Your task to perform on an android device: open chrome and create a bookmark for the current page Image 0: 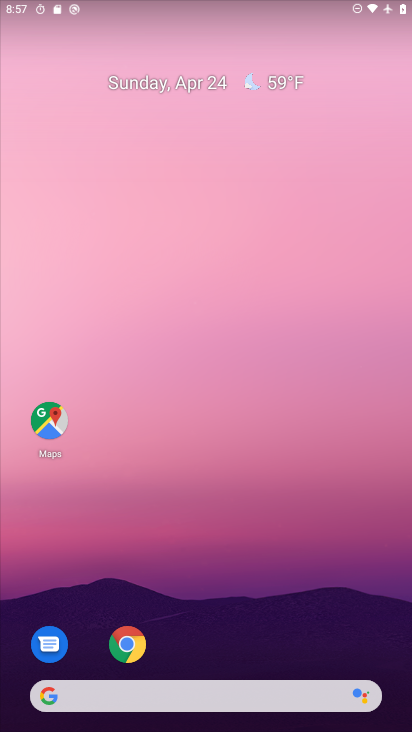
Step 0: drag from (209, 657) to (244, 90)
Your task to perform on an android device: open chrome and create a bookmark for the current page Image 1: 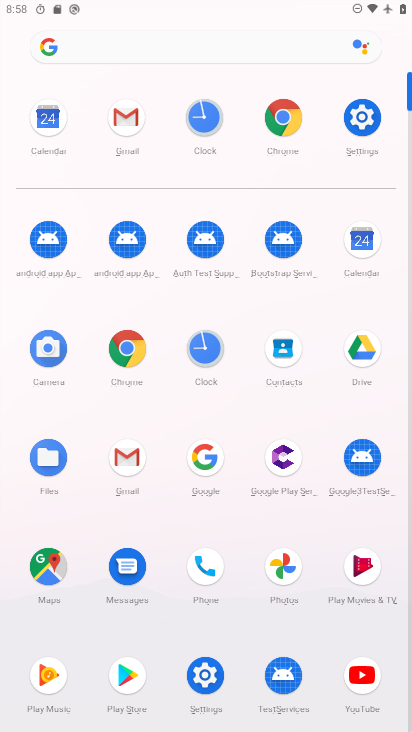
Step 1: click (115, 342)
Your task to perform on an android device: open chrome and create a bookmark for the current page Image 2: 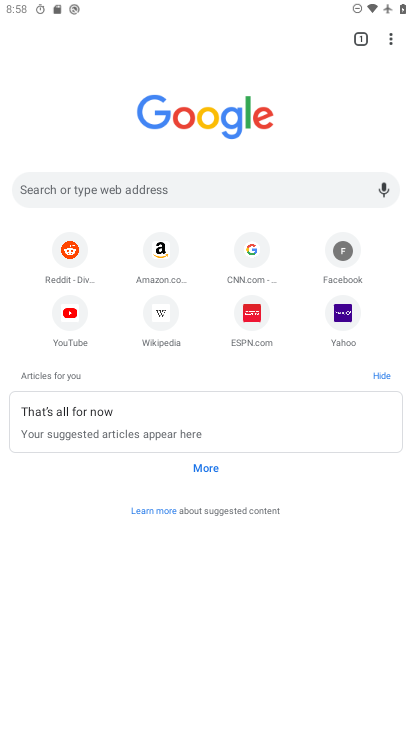
Step 2: click (97, 187)
Your task to perform on an android device: open chrome and create a bookmark for the current page Image 3: 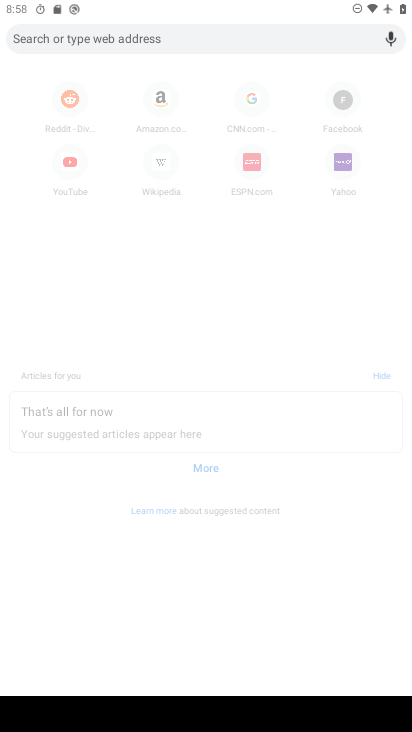
Step 3: type "night lamp"
Your task to perform on an android device: open chrome and create a bookmark for the current page Image 4: 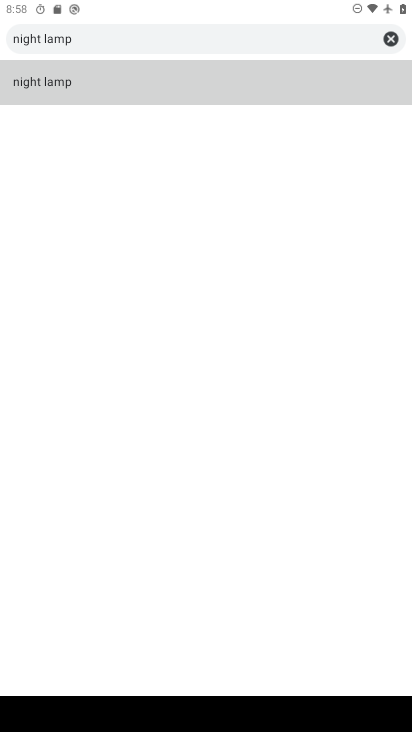
Step 4: click (74, 92)
Your task to perform on an android device: open chrome and create a bookmark for the current page Image 5: 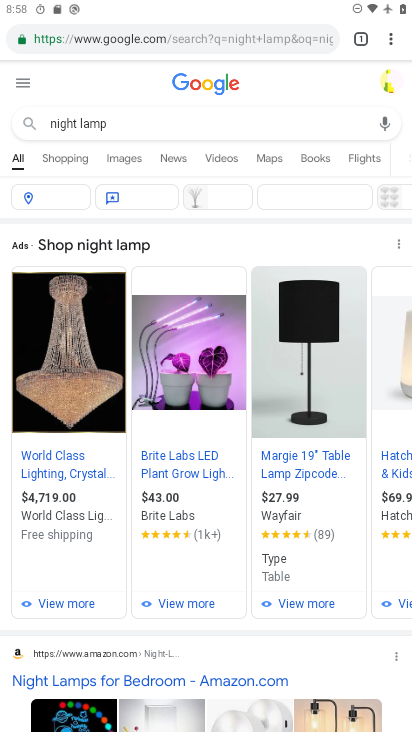
Step 5: click (392, 37)
Your task to perform on an android device: open chrome and create a bookmark for the current page Image 6: 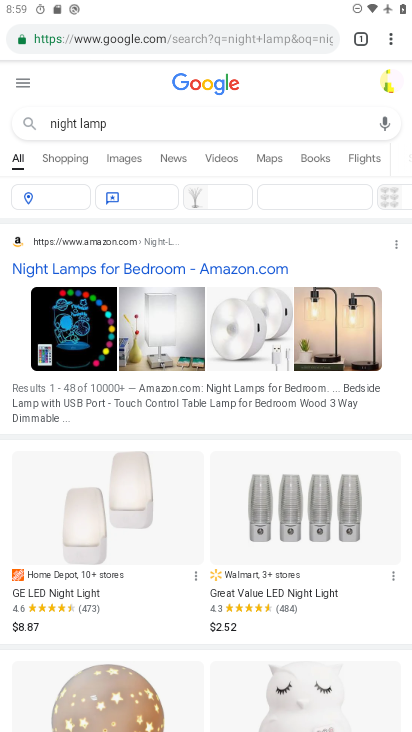
Step 6: click (389, 37)
Your task to perform on an android device: open chrome and create a bookmark for the current page Image 7: 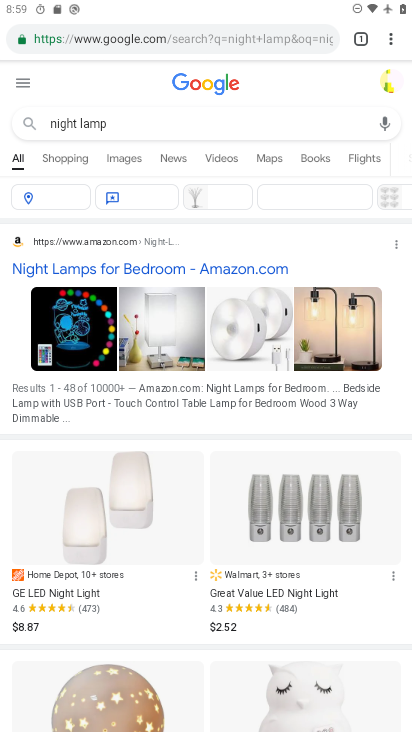
Step 7: click (390, 37)
Your task to perform on an android device: open chrome and create a bookmark for the current page Image 8: 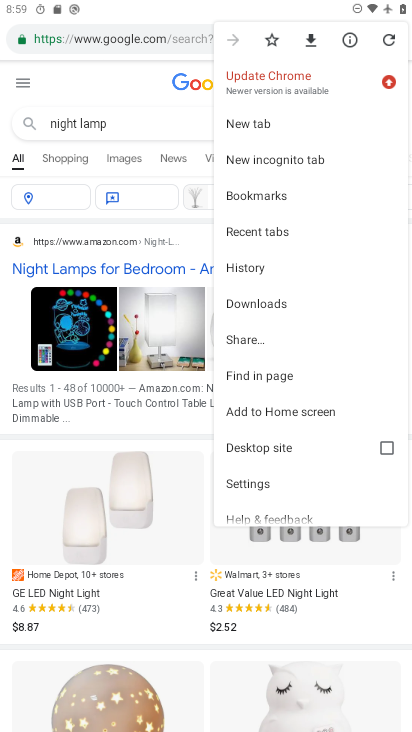
Step 8: click (270, 41)
Your task to perform on an android device: open chrome and create a bookmark for the current page Image 9: 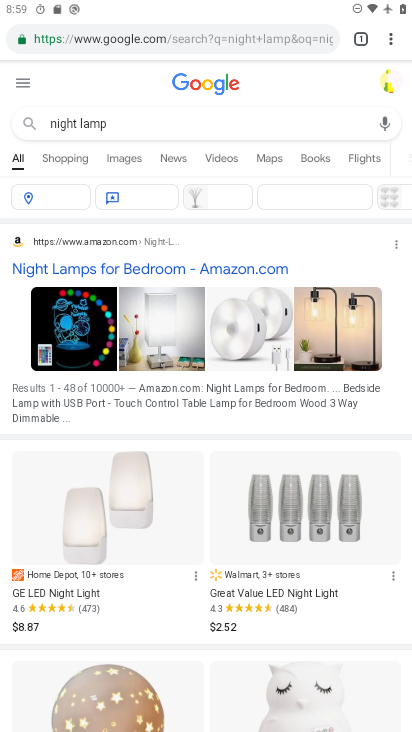
Step 9: task complete